Your task to perform on an android device: Open Amazon Image 0: 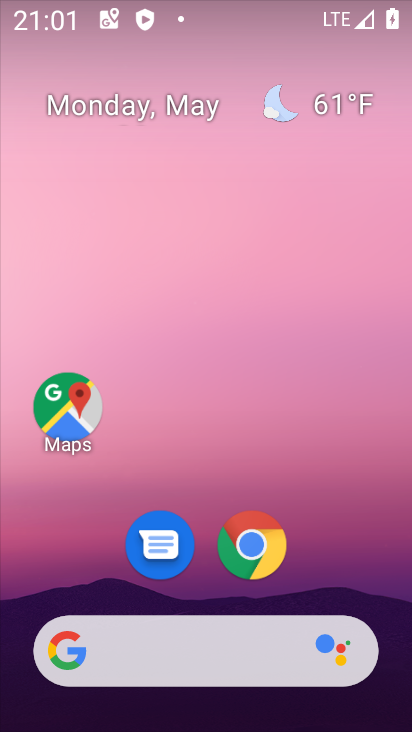
Step 0: click (253, 540)
Your task to perform on an android device: Open Amazon Image 1: 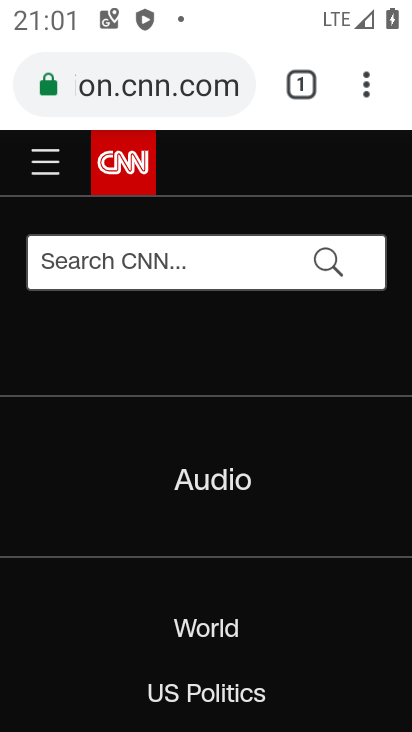
Step 1: click (178, 88)
Your task to perform on an android device: Open Amazon Image 2: 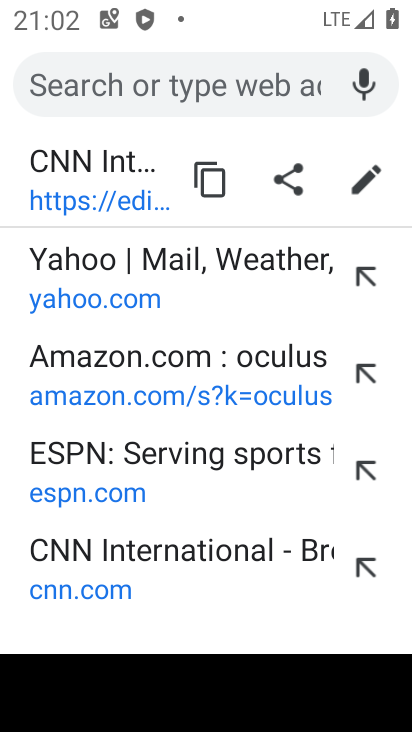
Step 2: type "amazon"
Your task to perform on an android device: Open Amazon Image 3: 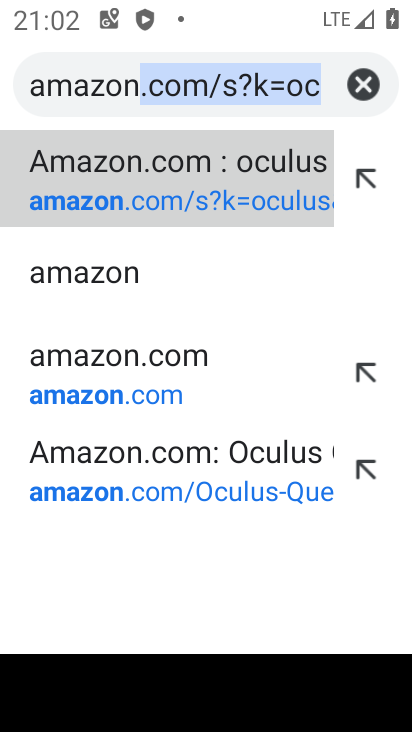
Step 3: click (156, 356)
Your task to perform on an android device: Open Amazon Image 4: 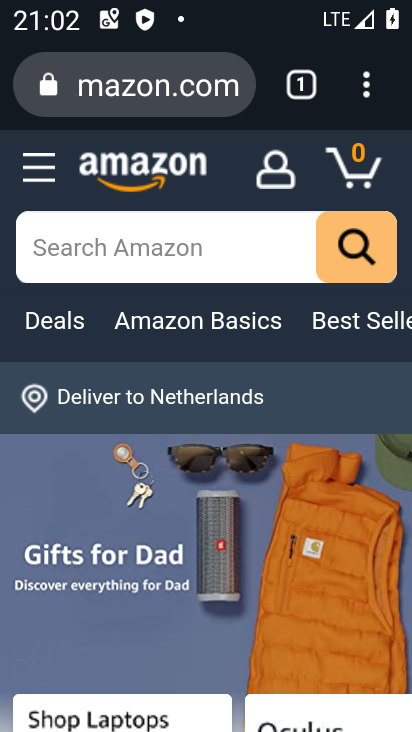
Step 4: task complete